Your task to perform on an android device: check battery use Image 0: 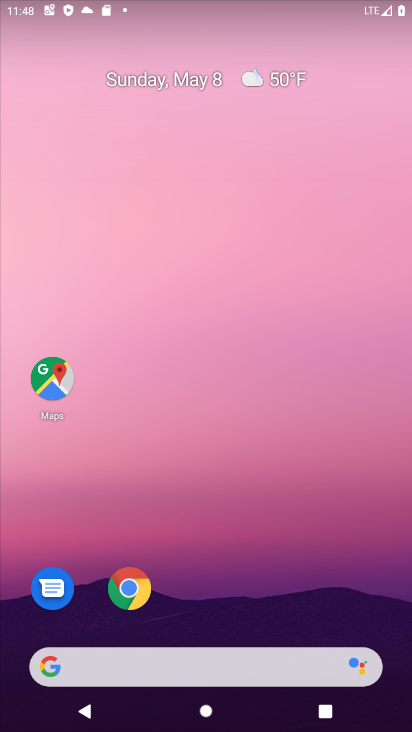
Step 0: click (141, 586)
Your task to perform on an android device: check battery use Image 1: 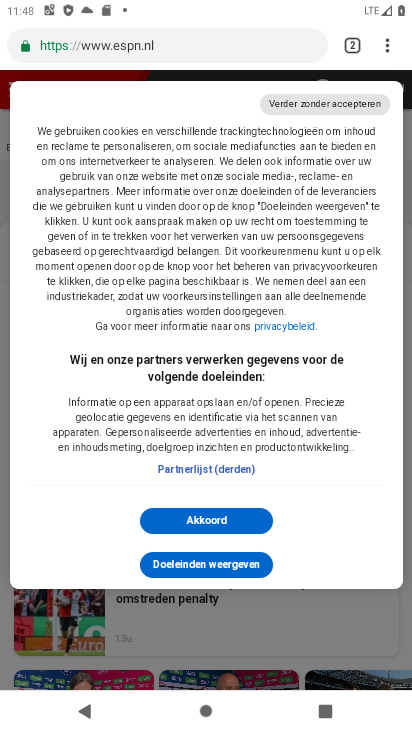
Step 1: press home button
Your task to perform on an android device: check battery use Image 2: 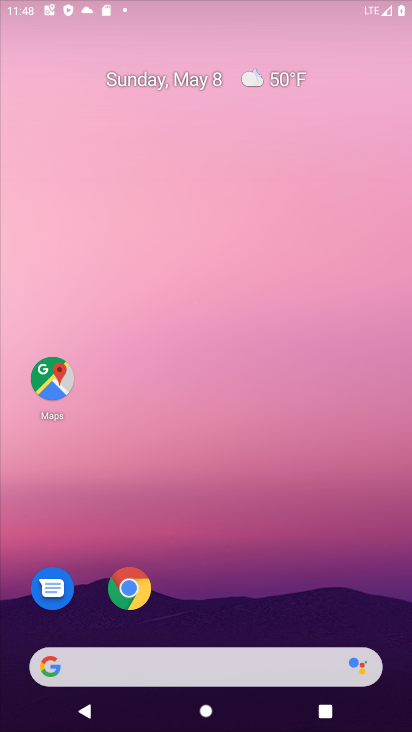
Step 2: drag from (278, 577) to (180, 27)
Your task to perform on an android device: check battery use Image 3: 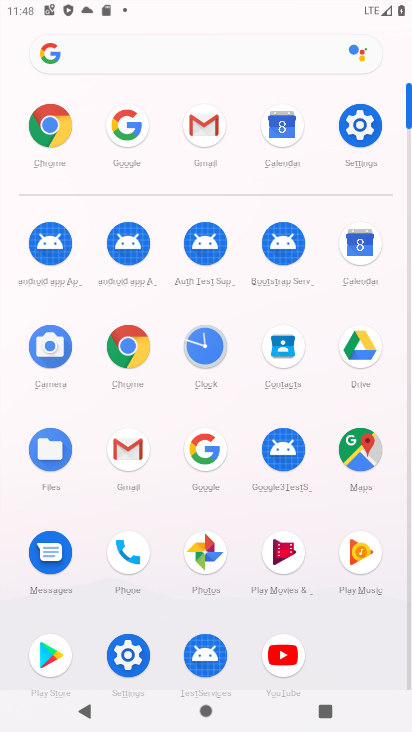
Step 3: click (378, 111)
Your task to perform on an android device: check battery use Image 4: 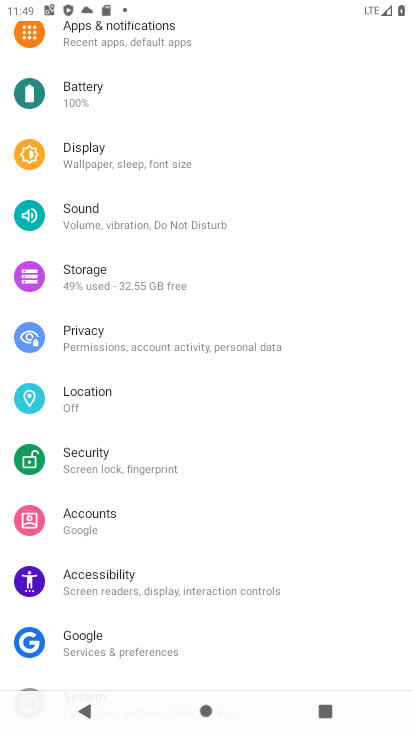
Step 4: click (129, 72)
Your task to perform on an android device: check battery use Image 5: 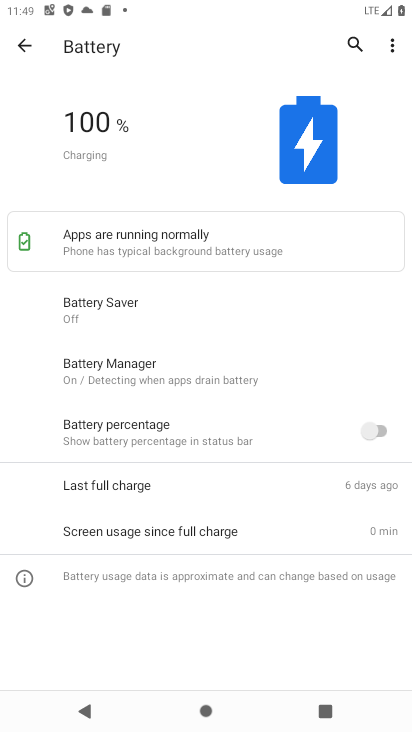
Step 5: task complete